Your task to perform on an android device: Is it going to rain today? Image 0: 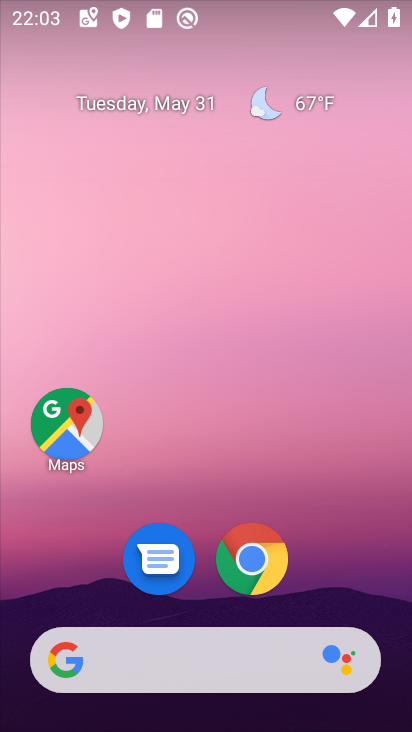
Step 0: drag from (338, 582) to (331, 70)
Your task to perform on an android device: Is it going to rain today? Image 1: 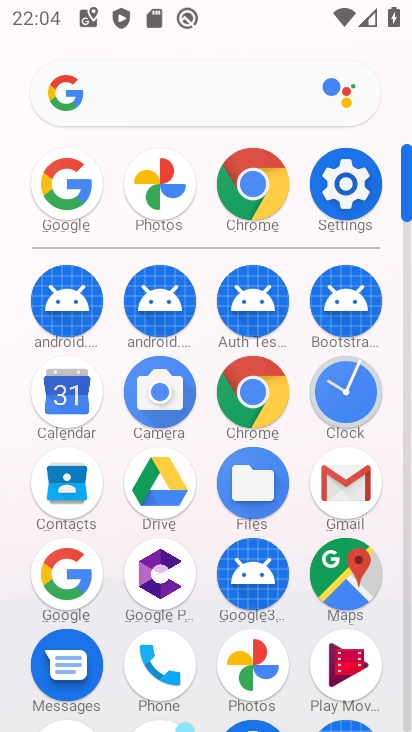
Step 1: click (64, 188)
Your task to perform on an android device: Is it going to rain today? Image 2: 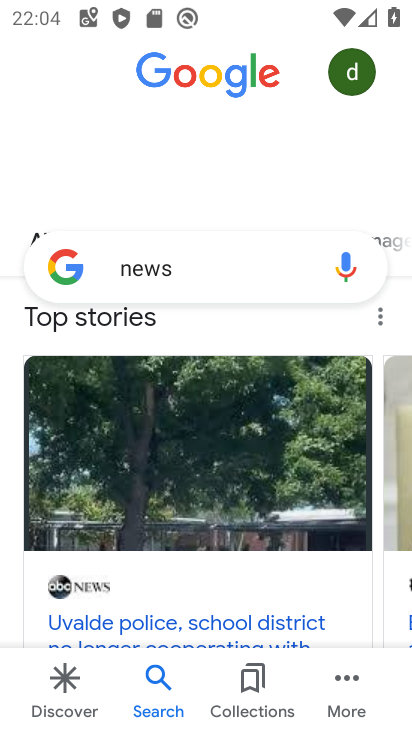
Step 2: click (217, 271)
Your task to perform on an android device: Is it going to rain today? Image 3: 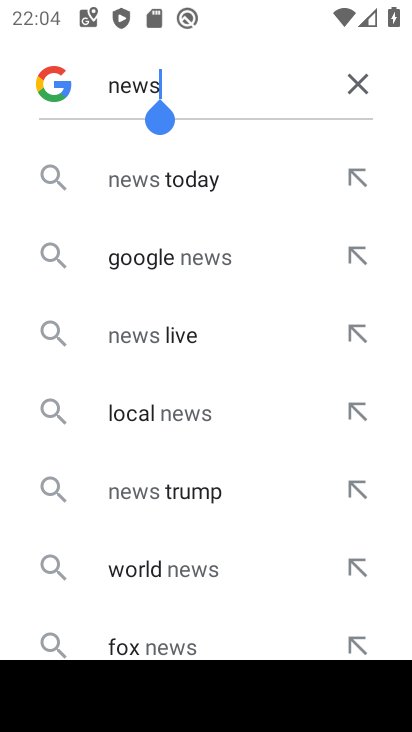
Step 3: click (353, 87)
Your task to perform on an android device: Is it going to rain today? Image 4: 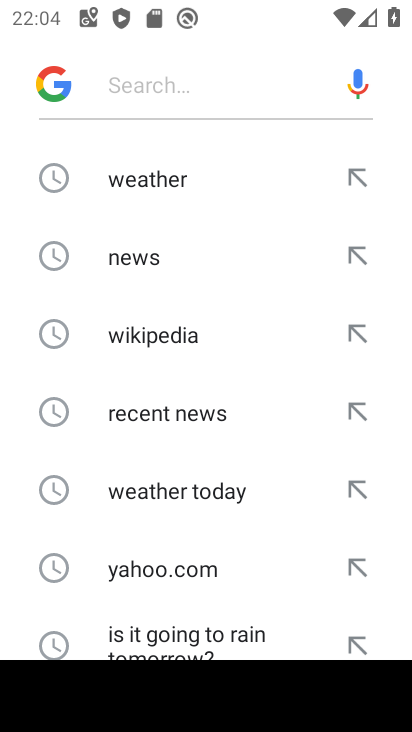
Step 4: drag from (197, 597) to (217, 307)
Your task to perform on an android device: Is it going to rain today? Image 5: 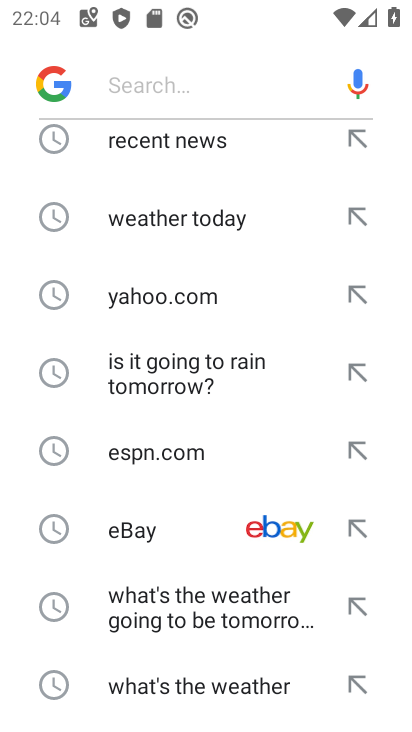
Step 5: drag from (231, 616) to (233, 261)
Your task to perform on an android device: Is it going to rain today? Image 6: 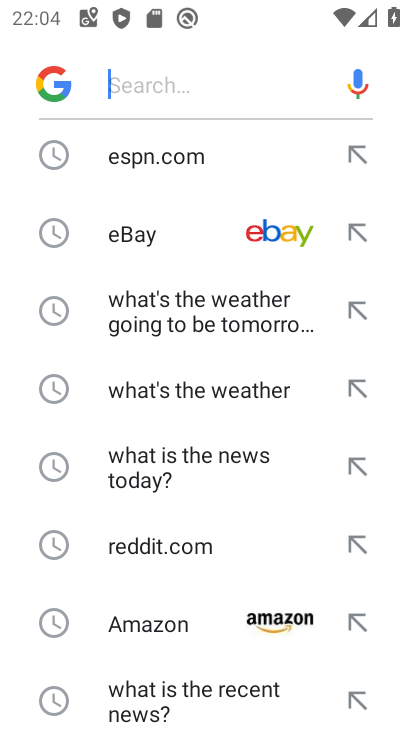
Step 6: drag from (212, 671) to (199, 239)
Your task to perform on an android device: Is it going to rain today? Image 7: 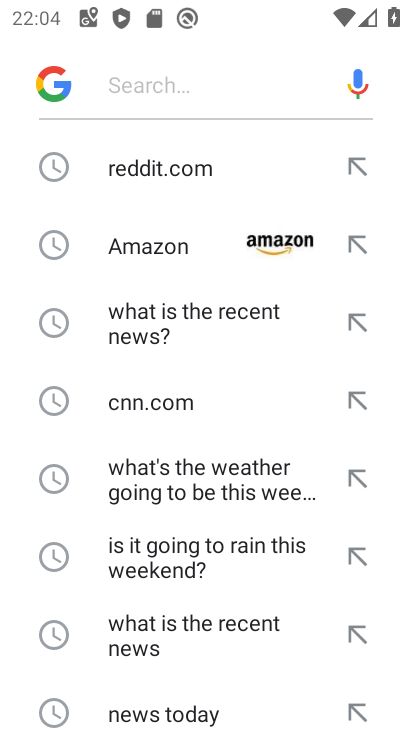
Step 7: drag from (201, 680) to (194, 291)
Your task to perform on an android device: Is it going to rain today? Image 8: 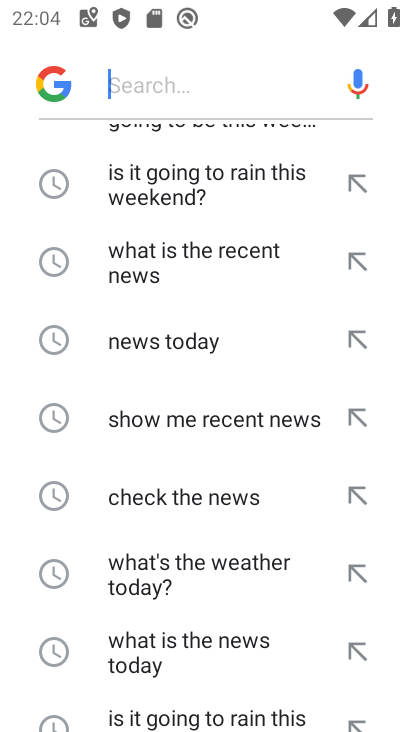
Step 8: drag from (205, 703) to (208, 563)
Your task to perform on an android device: Is it going to rain today? Image 9: 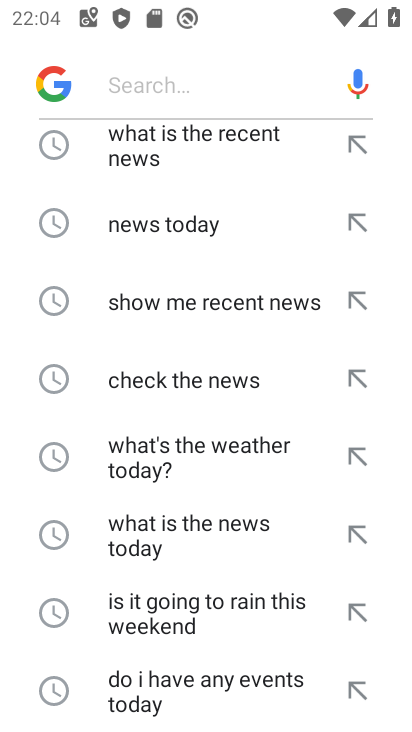
Step 9: click (206, 99)
Your task to perform on an android device: Is it going to rain today? Image 10: 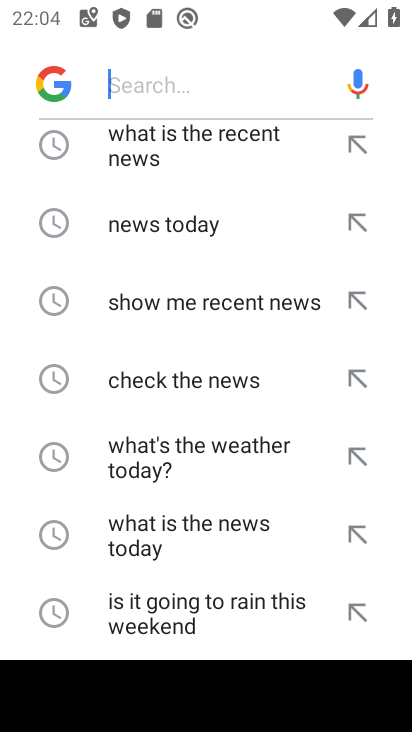
Step 10: type "is it going to rain today"
Your task to perform on an android device: Is it going to rain today? Image 11: 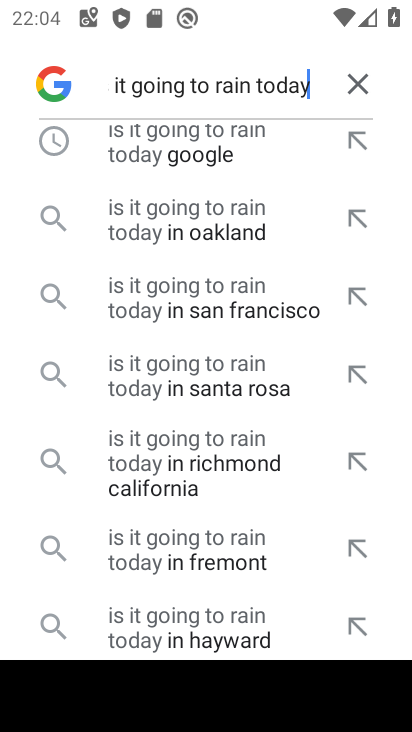
Step 11: drag from (235, 165) to (216, 379)
Your task to perform on an android device: Is it going to rain today? Image 12: 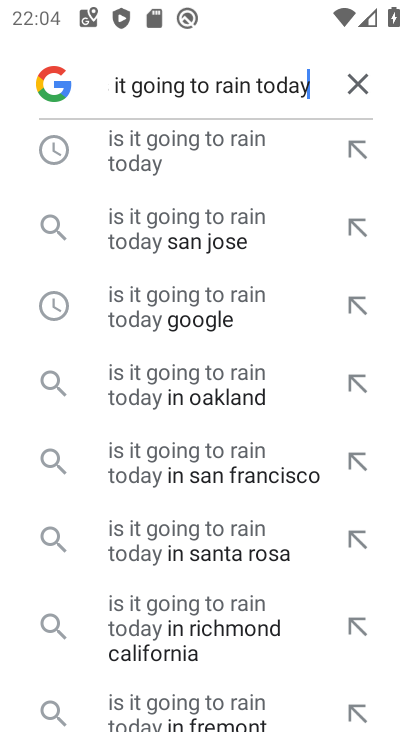
Step 12: drag from (235, 145) to (200, 659)
Your task to perform on an android device: Is it going to rain today? Image 13: 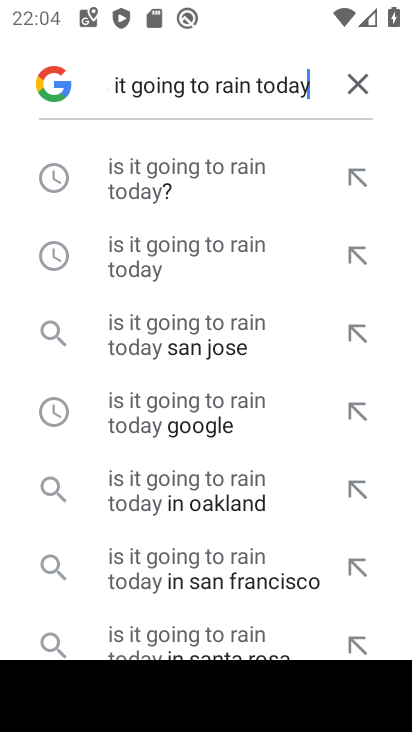
Step 13: click (165, 170)
Your task to perform on an android device: Is it going to rain today? Image 14: 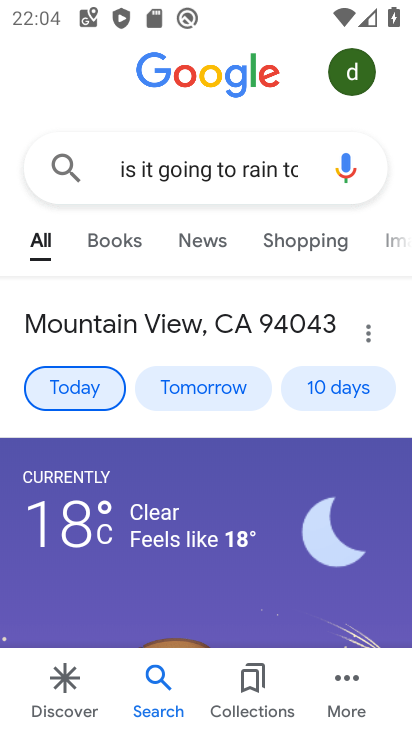
Step 14: task complete